Your task to perform on an android device: Go to Maps Image 0: 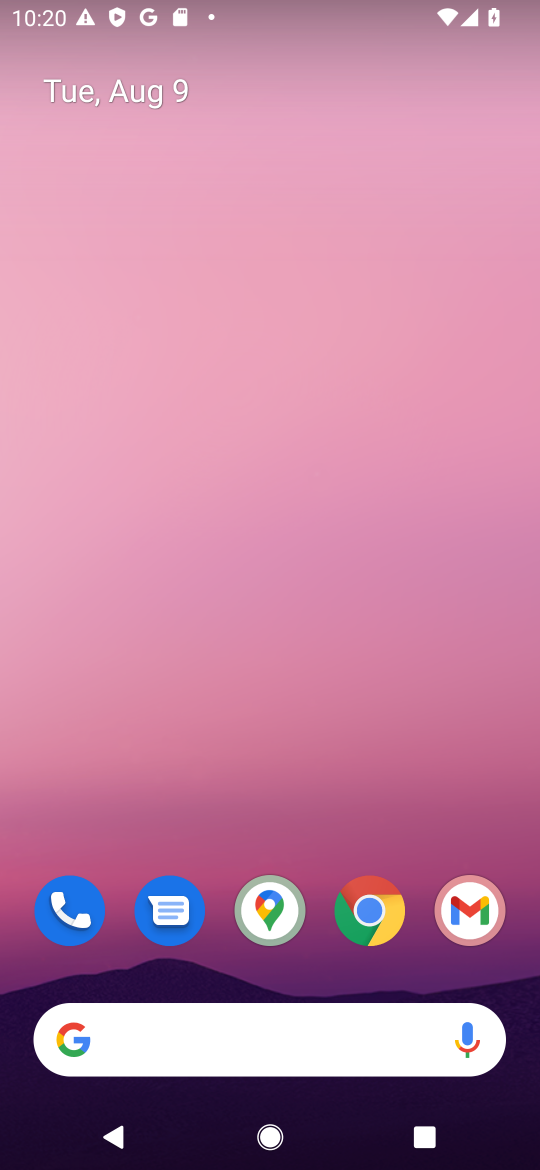
Step 0: press home button
Your task to perform on an android device: Go to Maps Image 1: 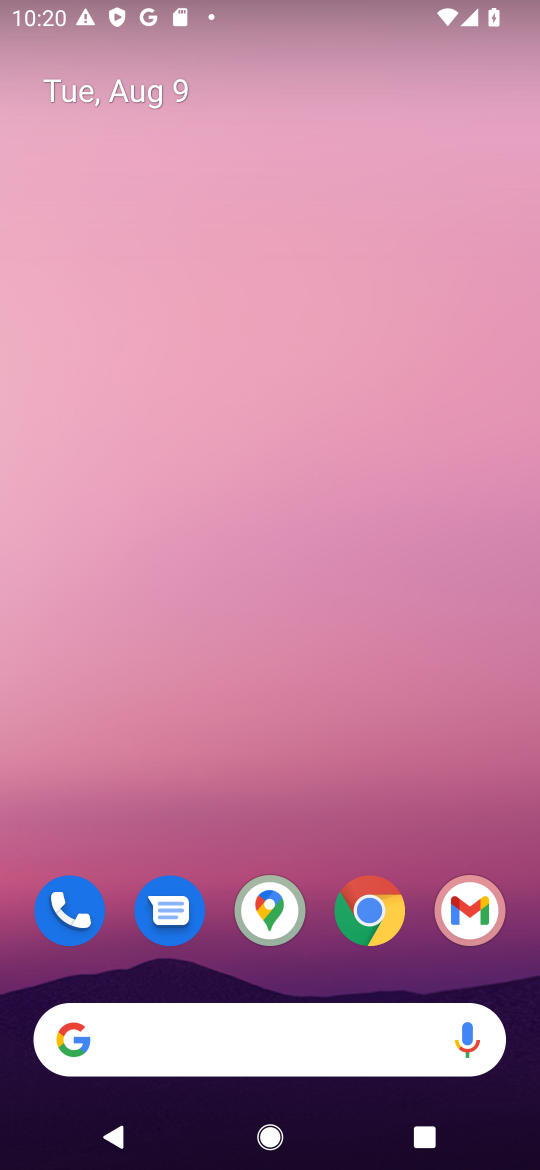
Step 1: click (278, 920)
Your task to perform on an android device: Go to Maps Image 2: 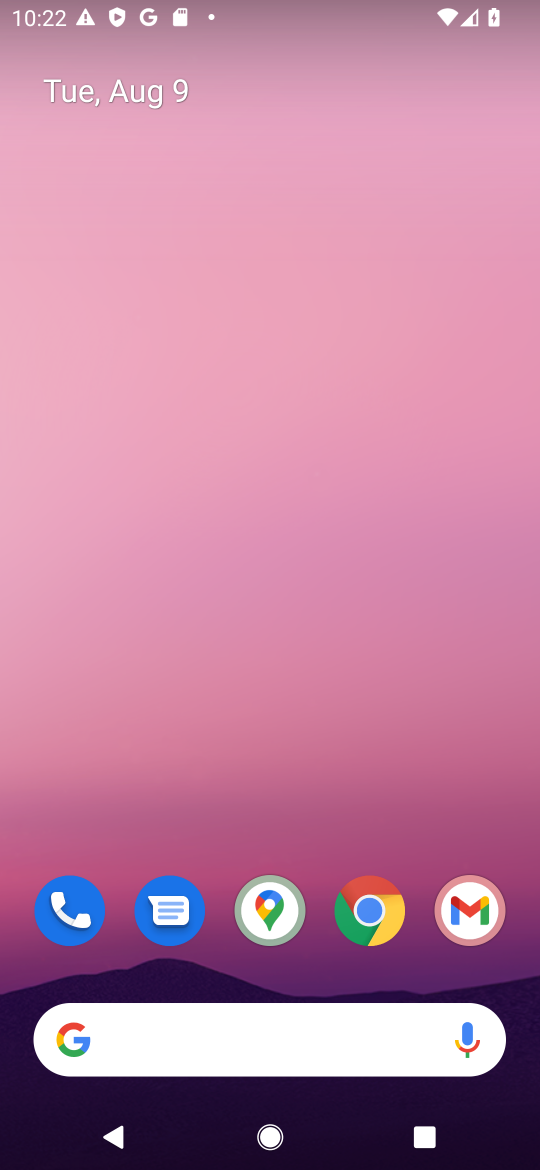
Step 2: click (288, 902)
Your task to perform on an android device: Go to Maps Image 3: 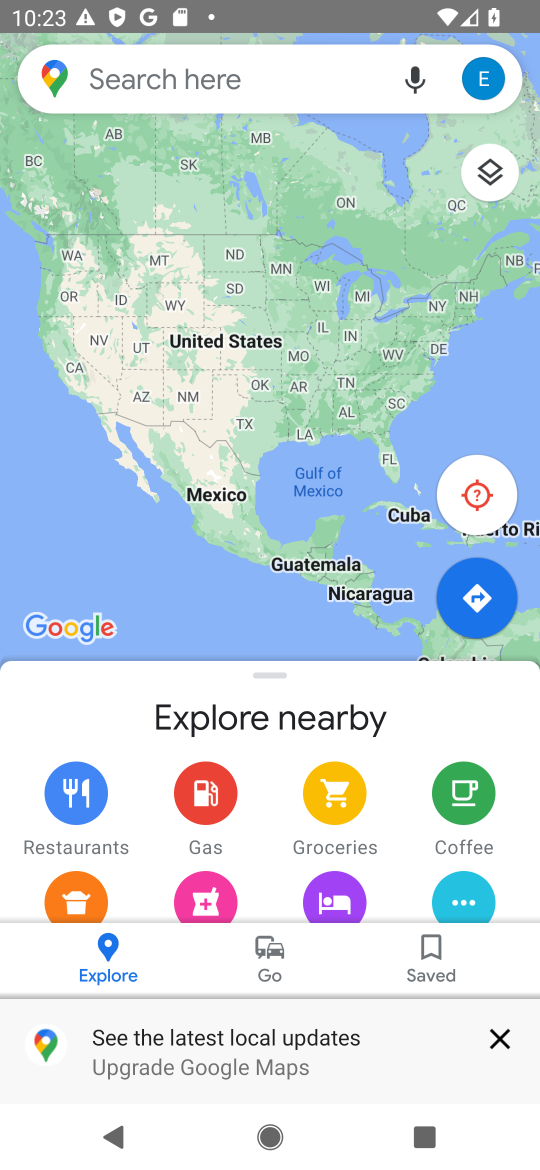
Step 3: task complete